Your task to perform on an android device: turn on notifications settings in the gmail app Image 0: 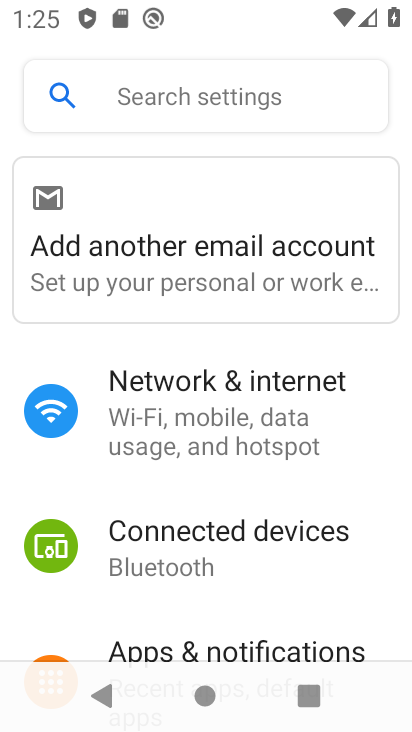
Step 0: press home button
Your task to perform on an android device: turn on notifications settings in the gmail app Image 1: 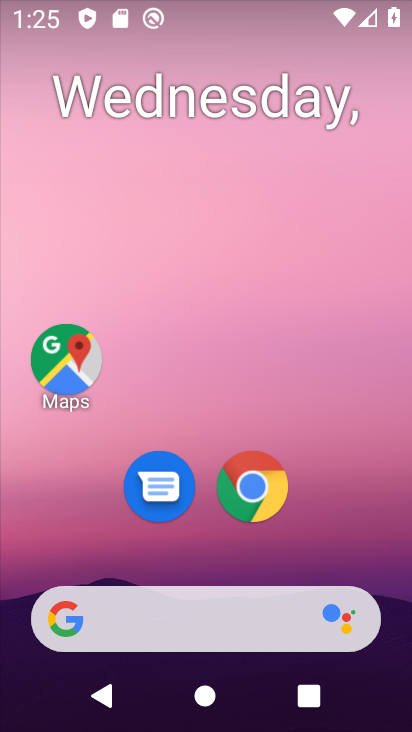
Step 1: drag from (125, 578) to (137, 293)
Your task to perform on an android device: turn on notifications settings in the gmail app Image 2: 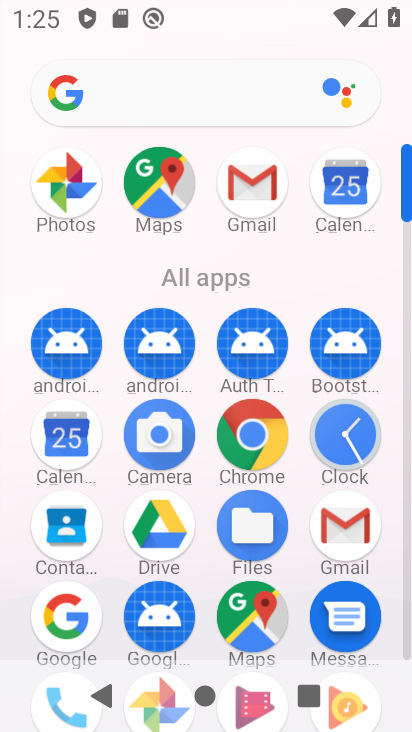
Step 2: click (349, 532)
Your task to perform on an android device: turn on notifications settings in the gmail app Image 3: 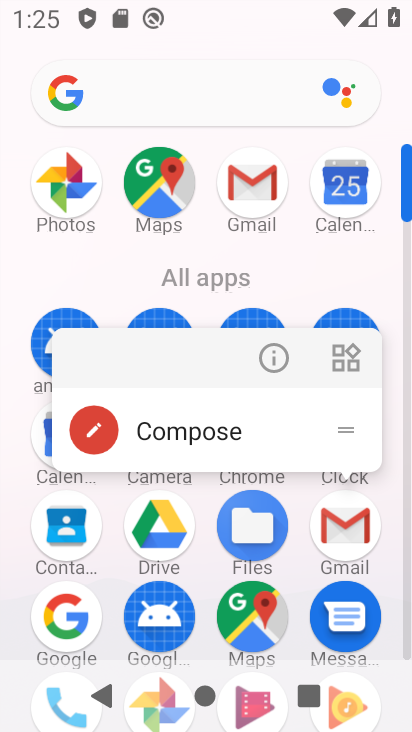
Step 3: click (283, 362)
Your task to perform on an android device: turn on notifications settings in the gmail app Image 4: 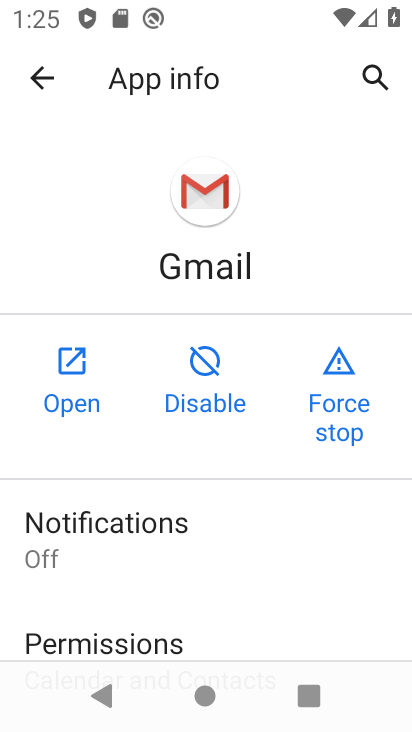
Step 4: click (217, 544)
Your task to perform on an android device: turn on notifications settings in the gmail app Image 5: 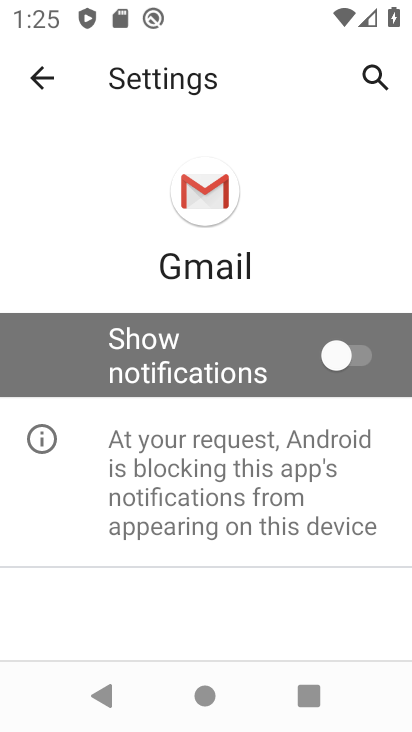
Step 5: click (335, 354)
Your task to perform on an android device: turn on notifications settings in the gmail app Image 6: 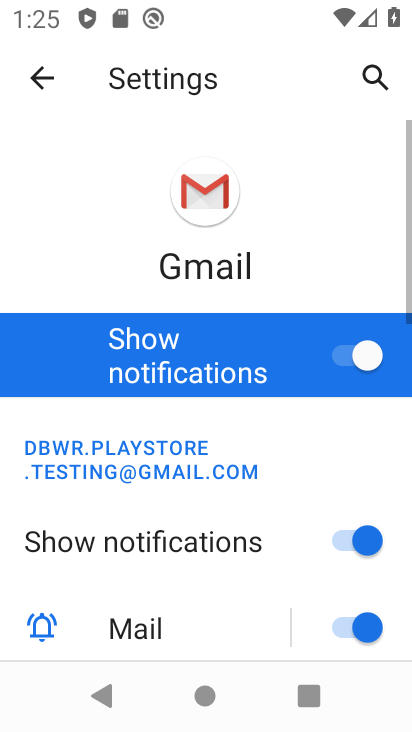
Step 6: task complete